Your task to perform on an android device: toggle wifi Image 0: 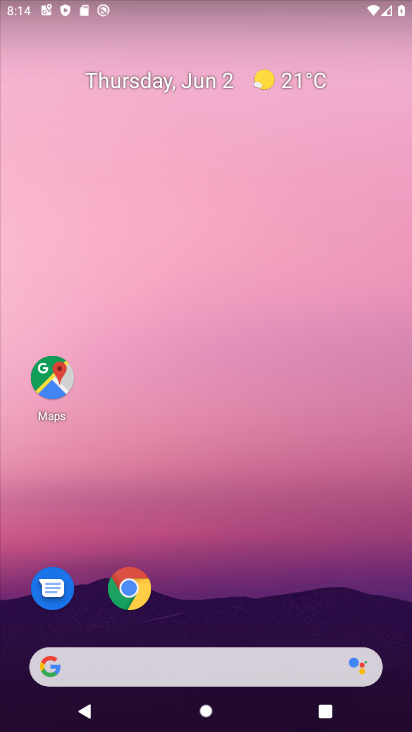
Step 0: drag from (213, 554) to (225, 80)
Your task to perform on an android device: toggle wifi Image 1: 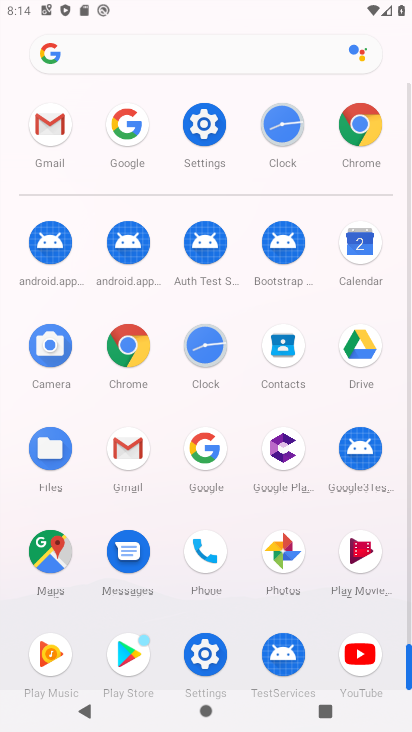
Step 1: click (204, 133)
Your task to perform on an android device: toggle wifi Image 2: 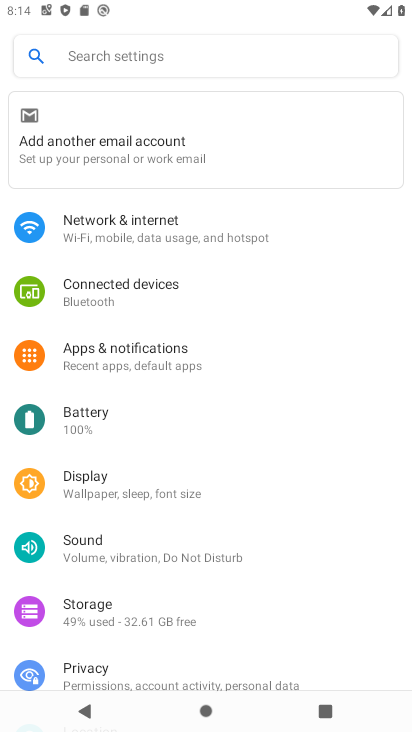
Step 2: click (209, 227)
Your task to perform on an android device: toggle wifi Image 3: 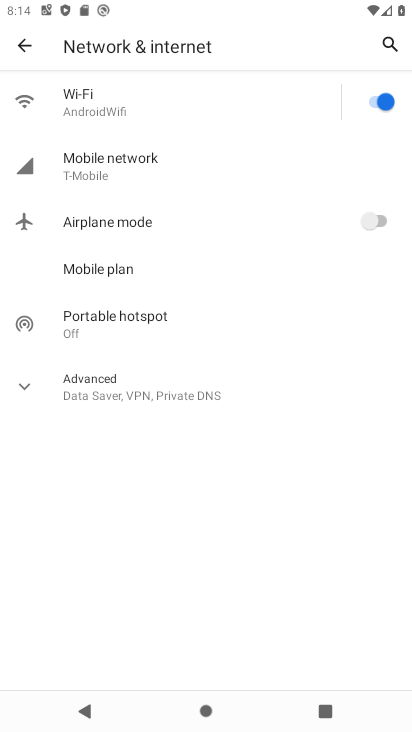
Step 3: click (167, 116)
Your task to perform on an android device: toggle wifi Image 4: 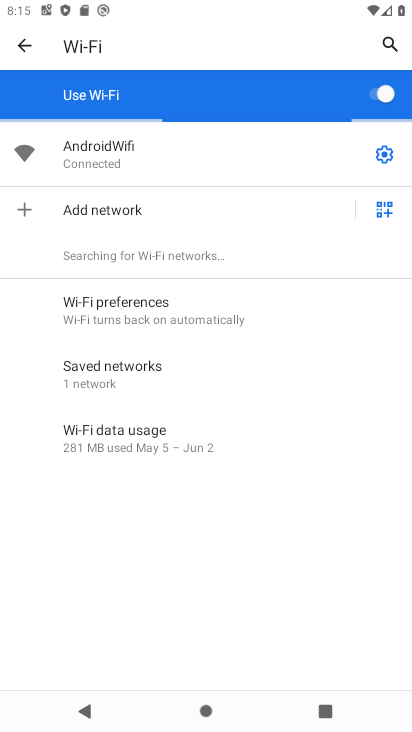
Step 4: click (362, 101)
Your task to perform on an android device: toggle wifi Image 5: 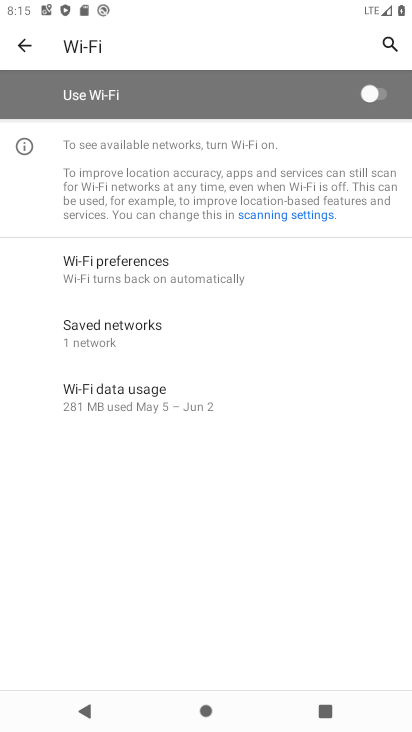
Step 5: task complete